Your task to perform on an android device: Open ESPN.com Image 0: 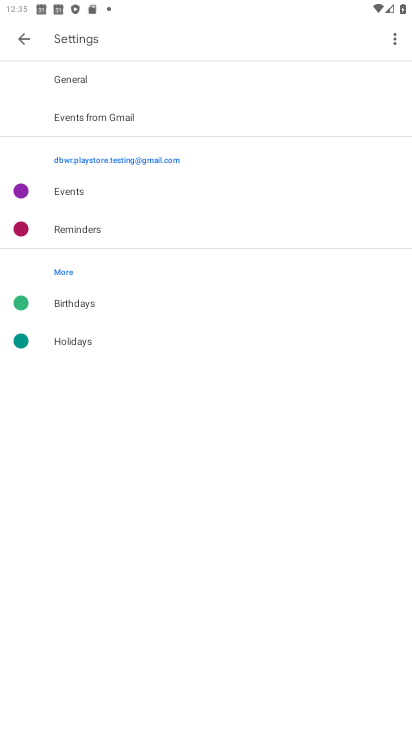
Step 0: press home button
Your task to perform on an android device: Open ESPN.com Image 1: 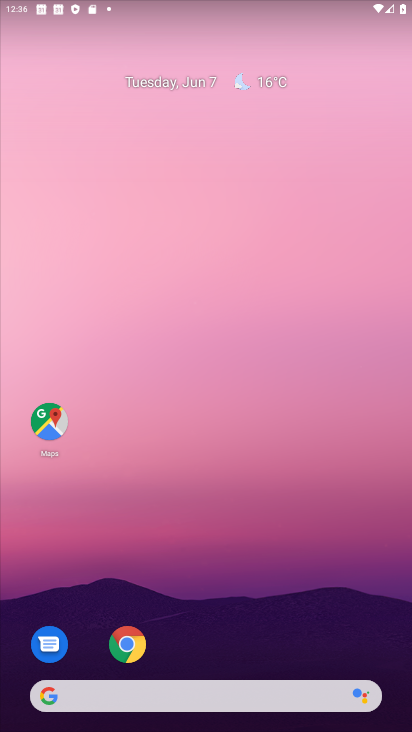
Step 1: drag from (241, 619) to (252, 109)
Your task to perform on an android device: Open ESPN.com Image 2: 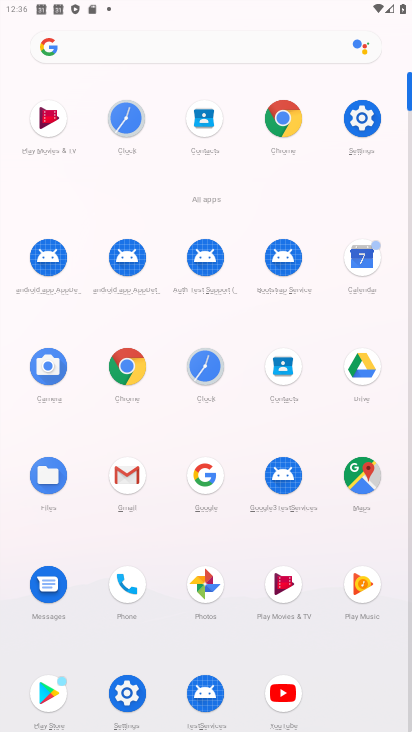
Step 2: click (288, 120)
Your task to perform on an android device: Open ESPN.com Image 3: 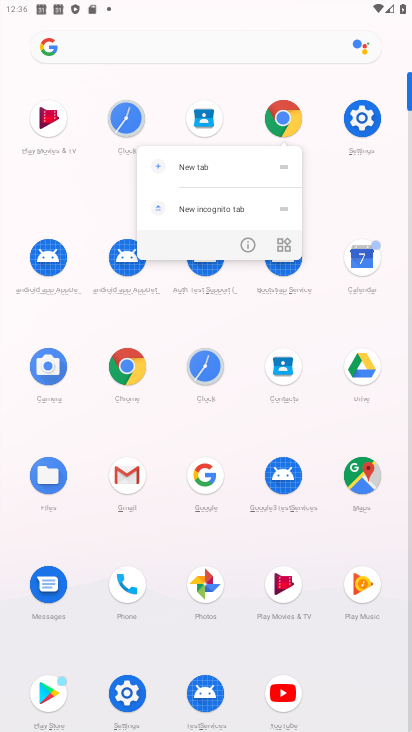
Step 3: click (241, 241)
Your task to perform on an android device: Open ESPN.com Image 4: 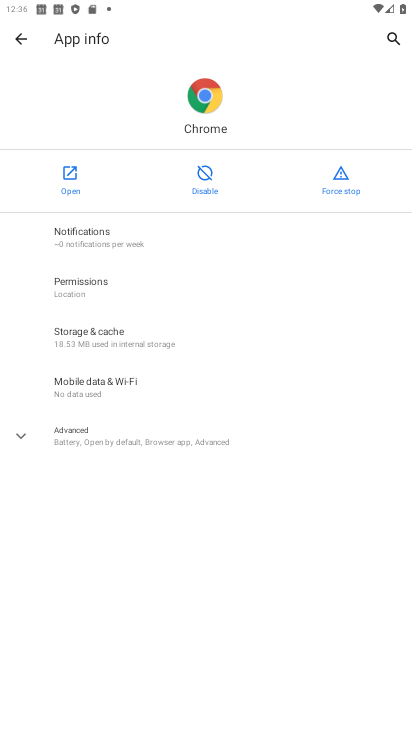
Step 4: click (79, 178)
Your task to perform on an android device: Open ESPN.com Image 5: 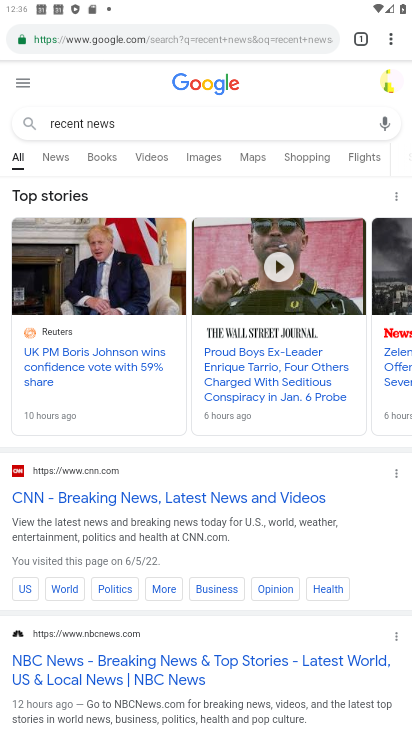
Step 5: click (97, 46)
Your task to perform on an android device: Open ESPN.com Image 6: 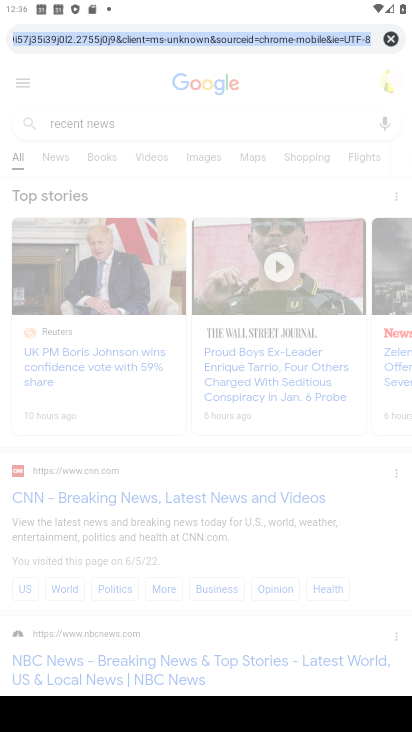
Step 6: type "ESPN.com"
Your task to perform on an android device: Open ESPN.com Image 7: 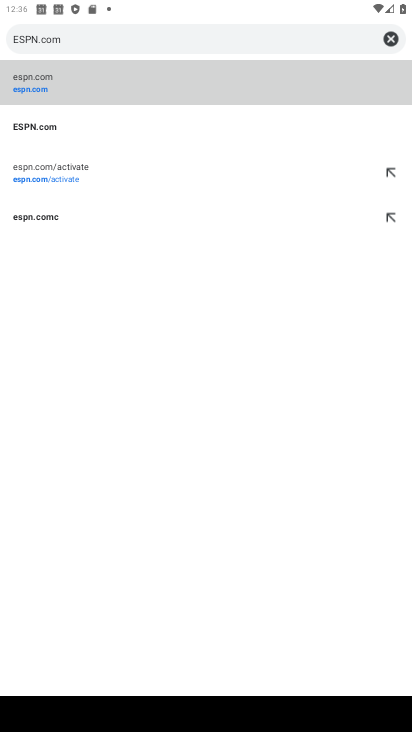
Step 7: click (95, 132)
Your task to perform on an android device: Open ESPN.com Image 8: 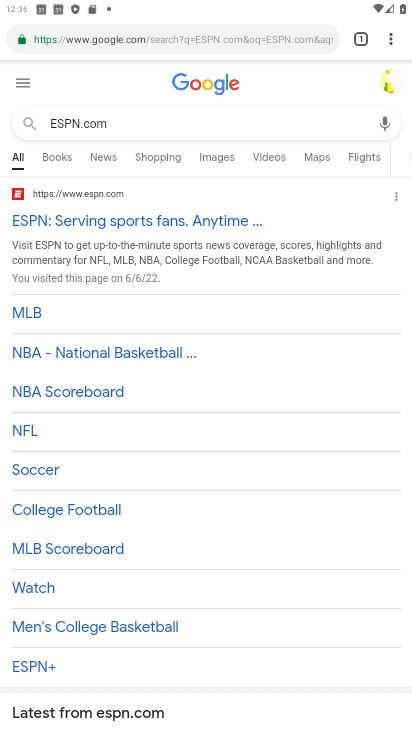
Step 8: task complete